Your task to perform on an android device: Open calendar and show me the fourth week of next month Image 0: 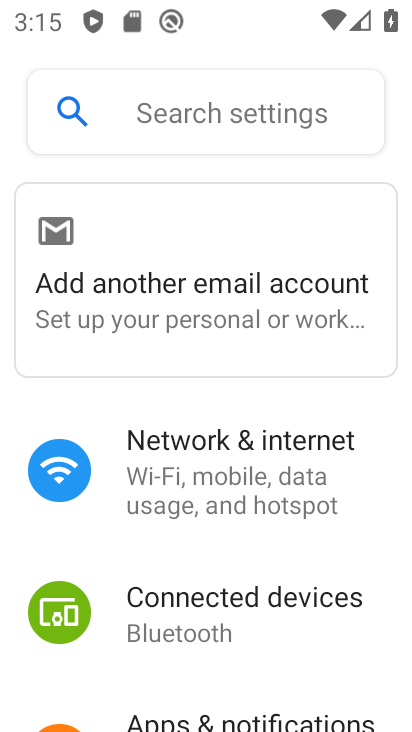
Step 0: press home button
Your task to perform on an android device: Open calendar and show me the fourth week of next month Image 1: 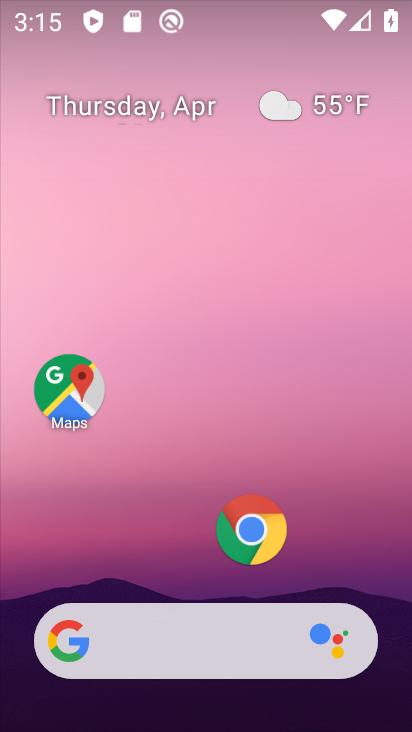
Step 1: drag from (165, 553) to (170, 83)
Your task to perform on an android device: Open calendar and show me the fourth week of next month Image 2: 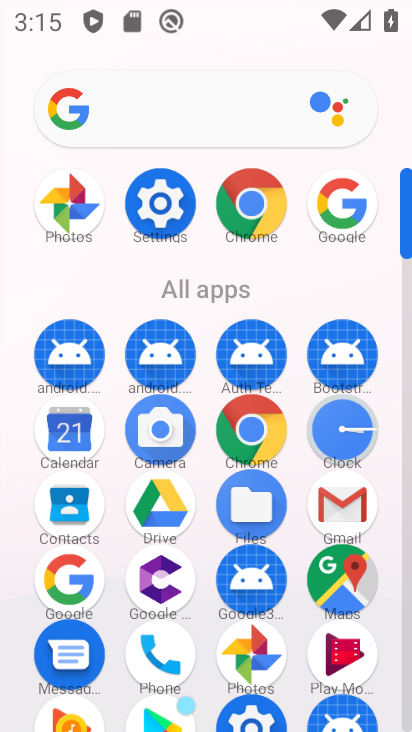
Step 2: click (74, 429)
Your task to perform on an android device: Open calendar and show me the fourth week of next month Image 3: 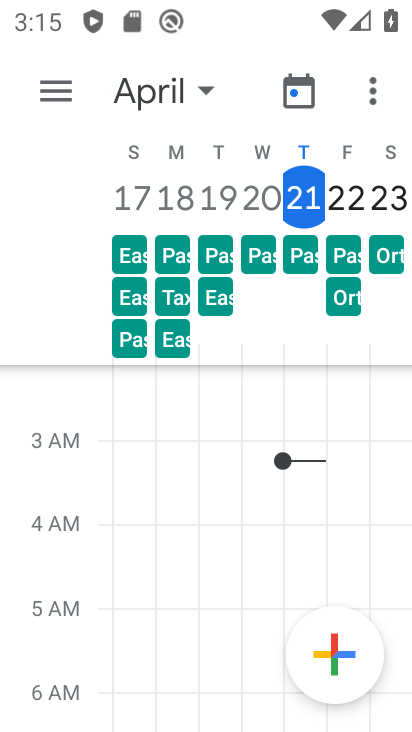
Step 3: click (194, 88)
Your task to perform on an android device: Open calendar and show me the fourth week of next month Image 4: 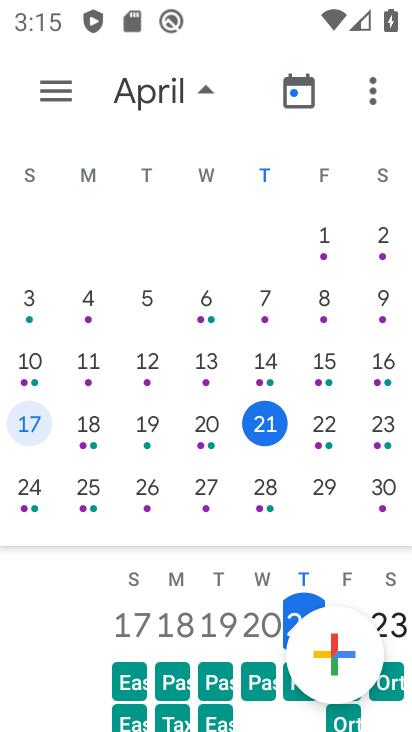
Step 4: drag from (392, 338) to (1, 289)
Your task to perform on an android device: Open calendar and show me the fourth week of next month Image 5: 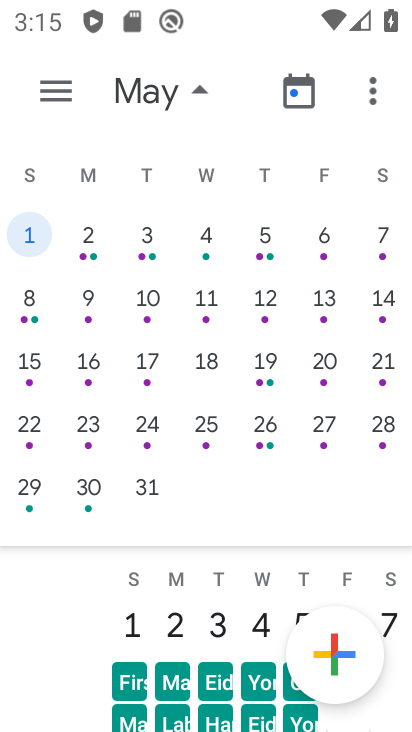
Step 5: click (204, 418)
Your task to perform on an android device: Open calendar and show me the fourth week of next month Image 6: 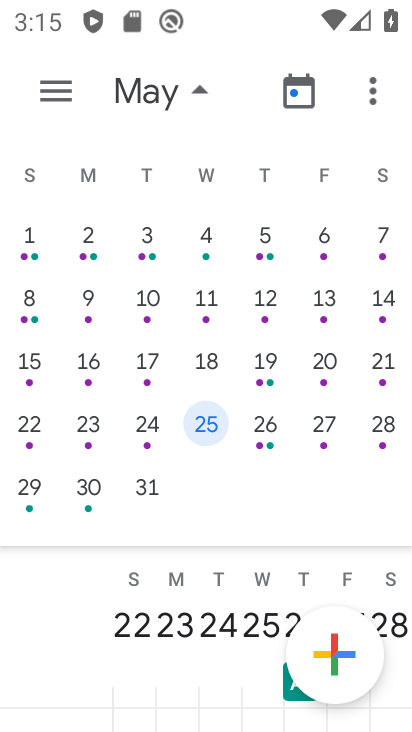
Step 6: click (44, 99)
Your task to perform on an android device: Open calendar and show me the fourth week of next month Image 7: 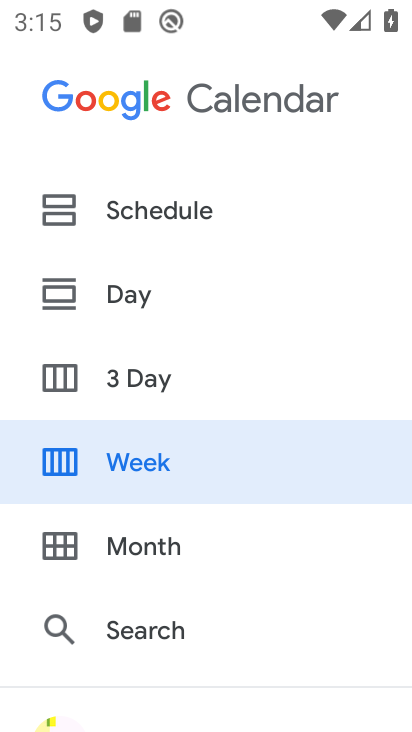
Step 7: click (180, 450)
Your task to perform on an android device: Open calendar and show me the fourth week of next month Image 8: 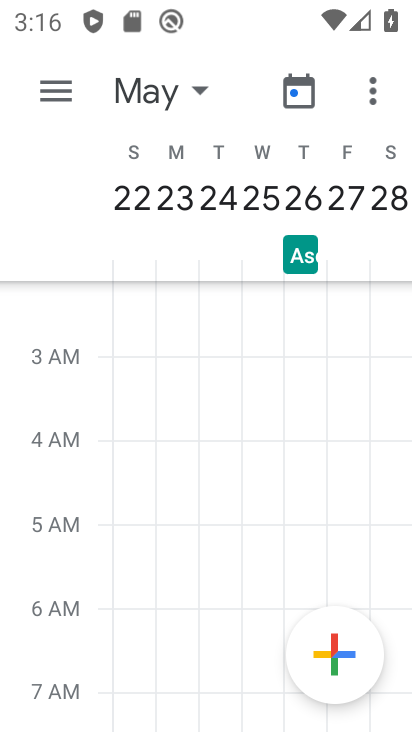
Step 8: task complete